Your task to perform on an android device: Open Wikipedia Image 0: 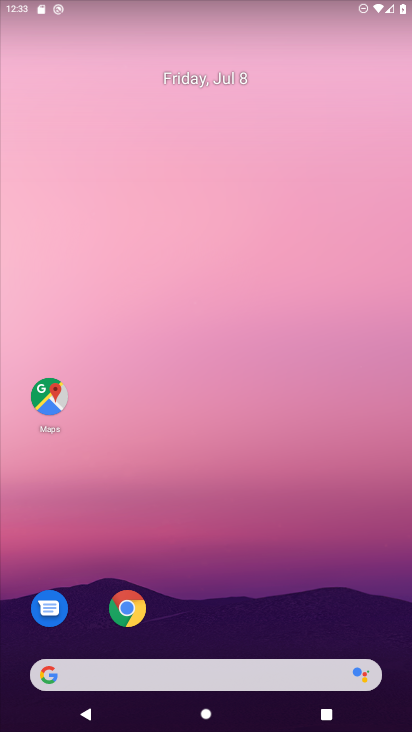
Step 0: click (127, 604)
Your task to perform on an android device: Open Wikipedia Image 1: 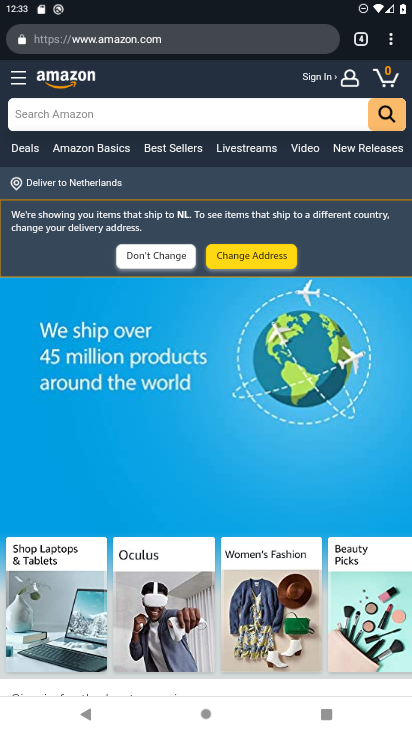
Step 1: click (392, 50)
Your task to perform on an android device: Open Wikipedia Image 2: 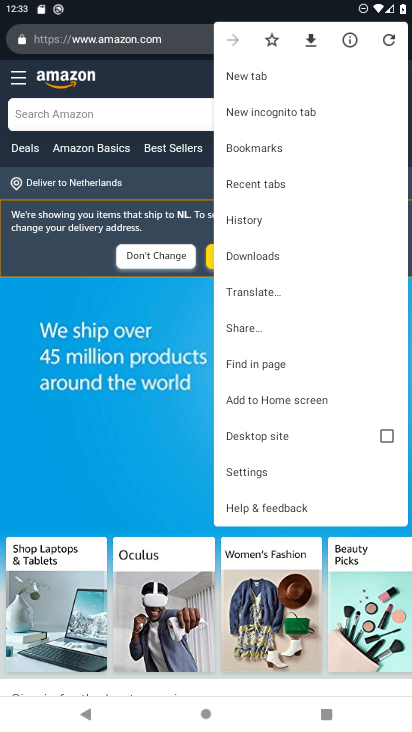
Step 2: click (251, 74)
Your task to perform on an android device: Open Wikipedia Image 3: 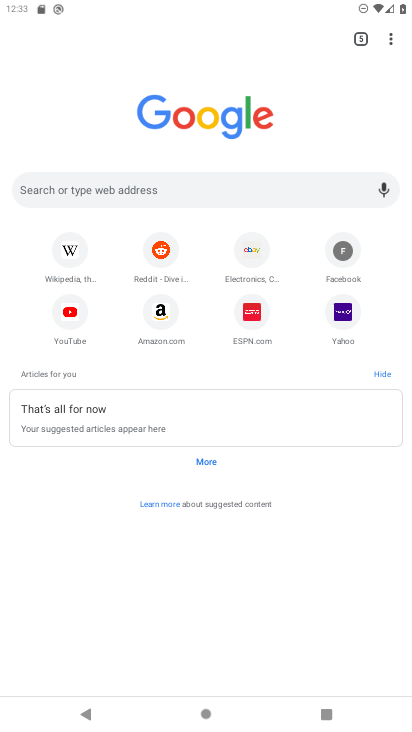
Step 3: click (63, 258)
Your task to perform on an android device: Open Wikipedia Image 4: 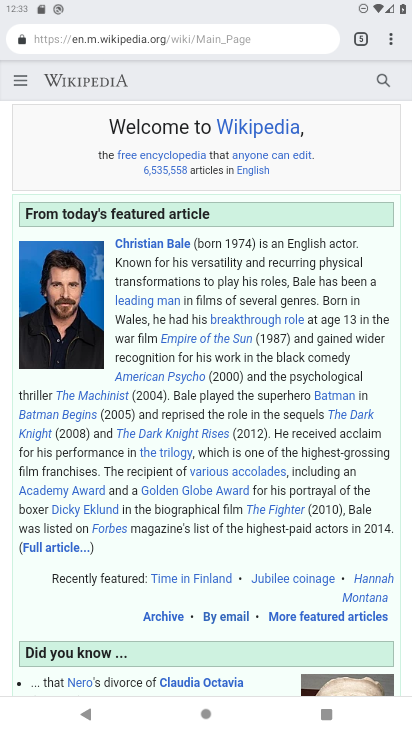
Step 4: task complete